Your task to perform on an android device: Open Google Maps Image 0: 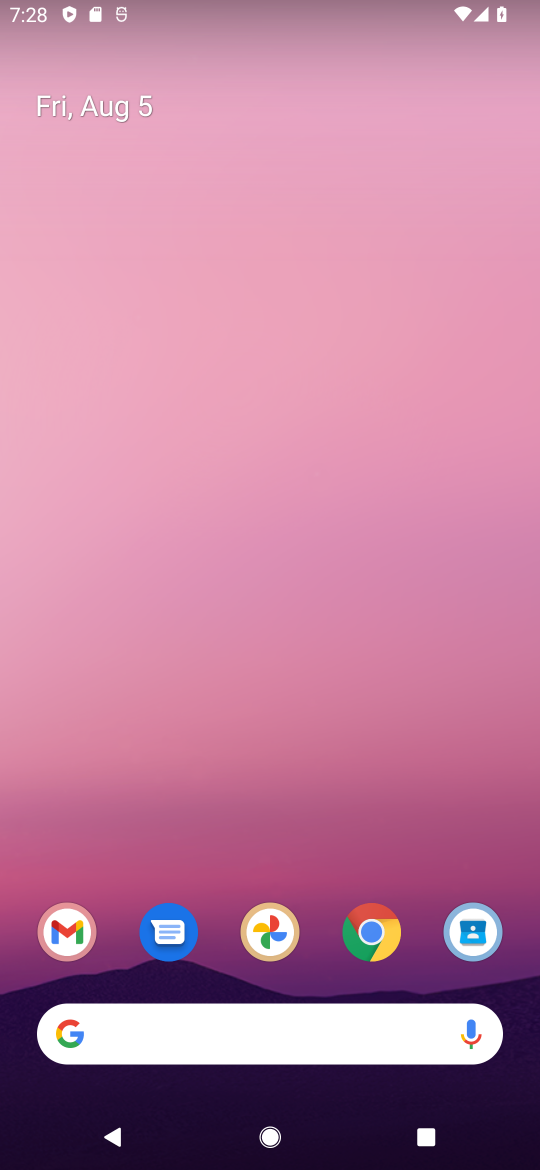
Step 0: drag from (384, 850) to (470, 117)
Your task to perform on an android device: Open Google Maps Image 1: 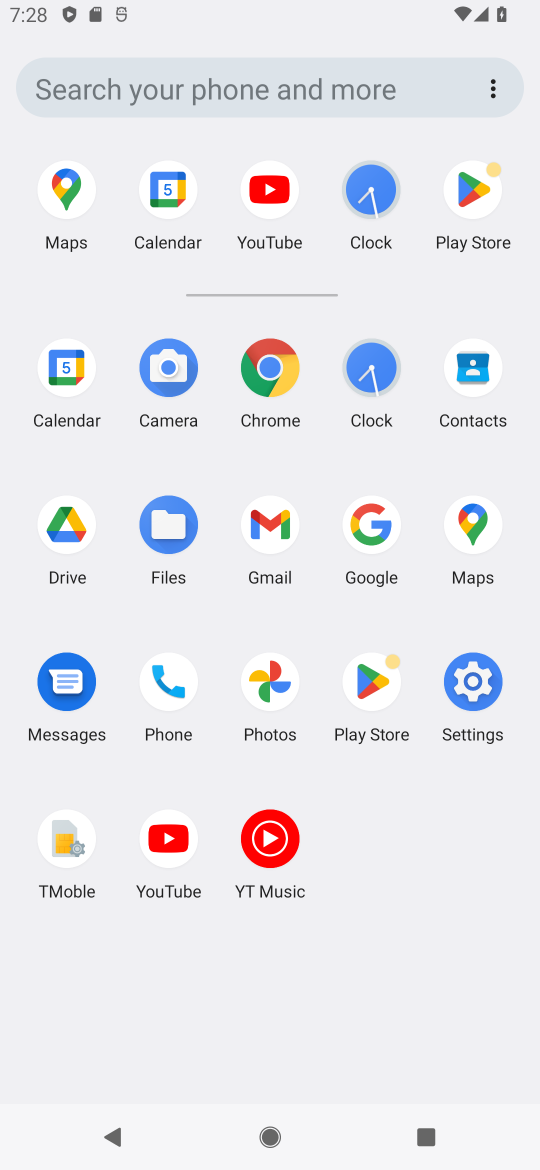
Step 1: click (471, 515)
Your task to perform on an android device: Open Google Maps Image 2: 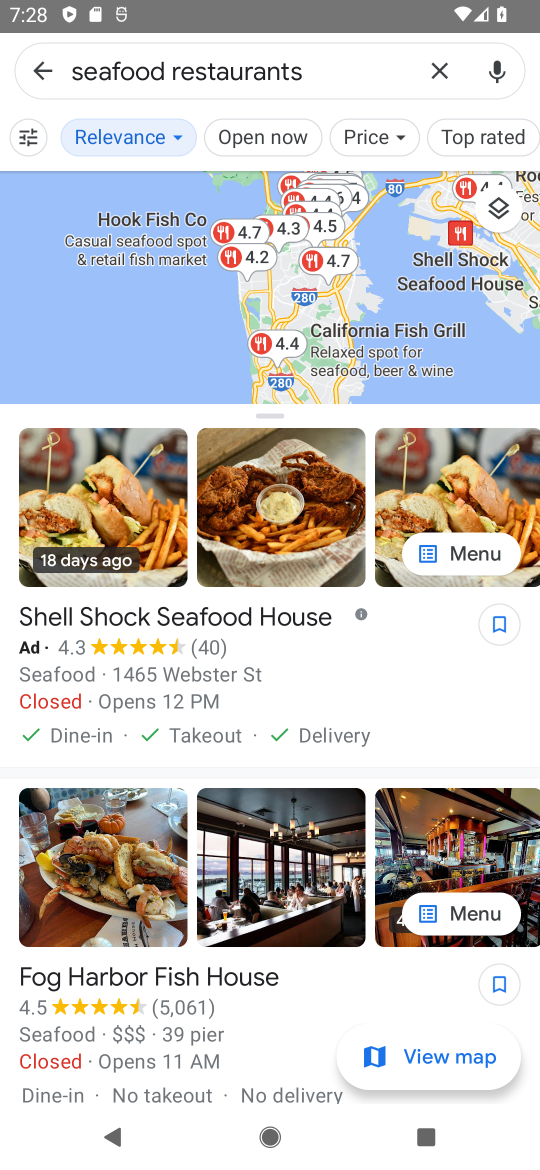
Step 2: task complete